Your task to perform on an android device: empty trash in google photos Image 0: 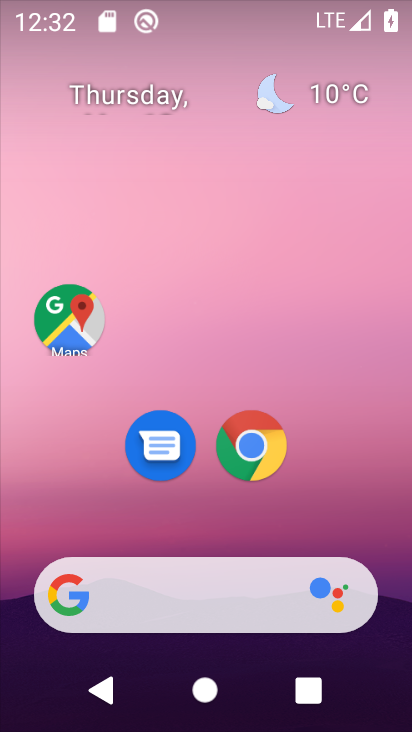
Step 0: drag from (188, 397) to (276, 70)
Your task to perform on an android device: empty trash in google photos Image 1: 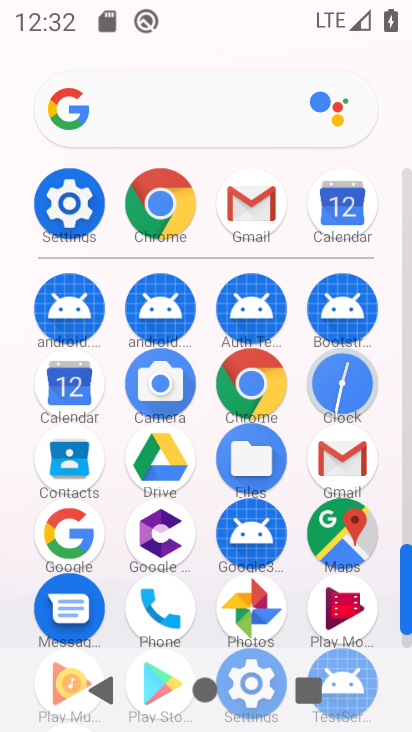
Step 1: click (274, 604)
Your task to perform on an android device: empty trash in google photos Image 2: 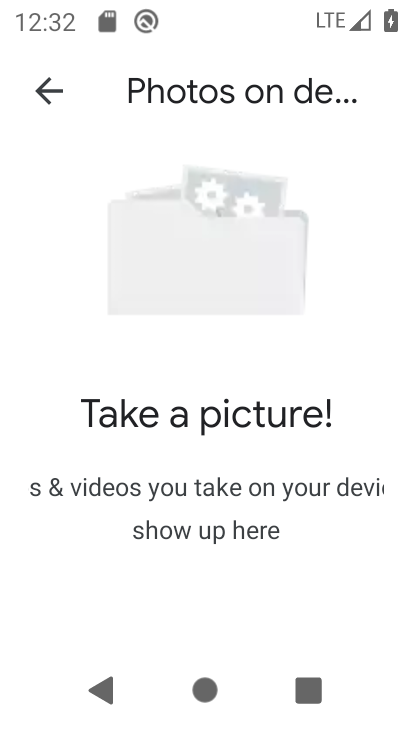
Step 2: click (50, 90)
Your task to perform on an android device: empty trash in google photos Image 3: 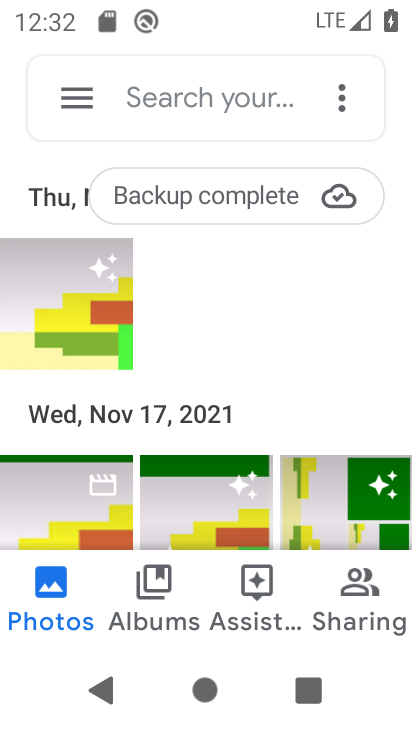
Step 3: click (62, 86)
Your task to perform on an android device: empty trash in google photos Image 4: 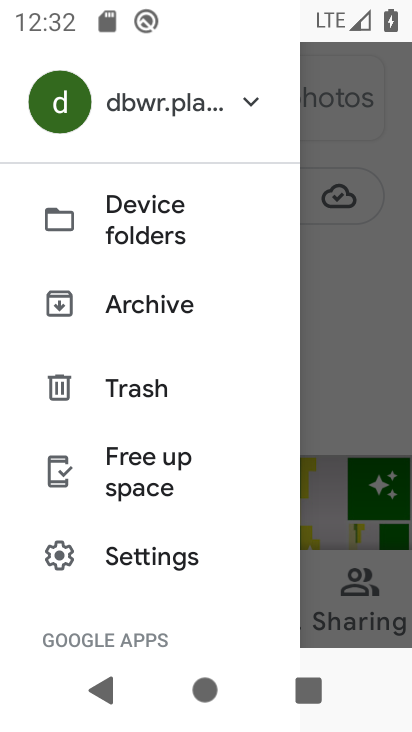
Step 4: click (137, 402)
Your task to perform on an android device: empty trash in google photos Image 5: 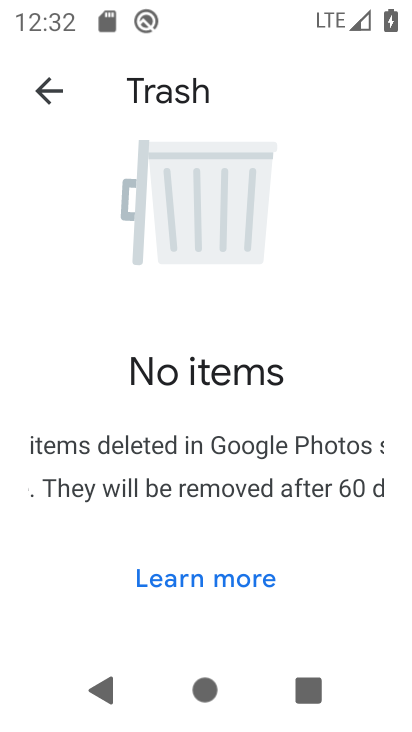
Step 5: task complete